Your task to perform on an android device: check battery use Image 0: 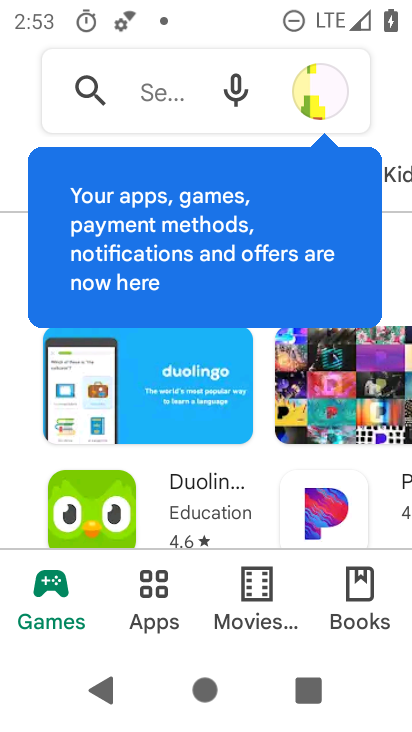
Step 0: press home button
Your task to perform on an android device: check battery use Image 1: 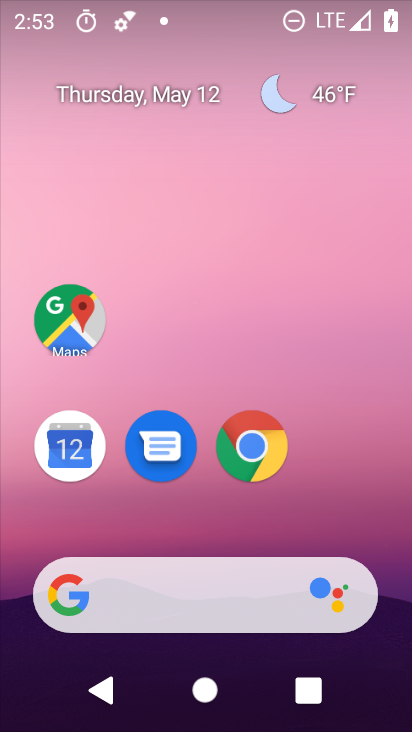
Step 1: drag from (217, 540) to (210, 119)
Your task to perform on an android device: check battery use Image 2: 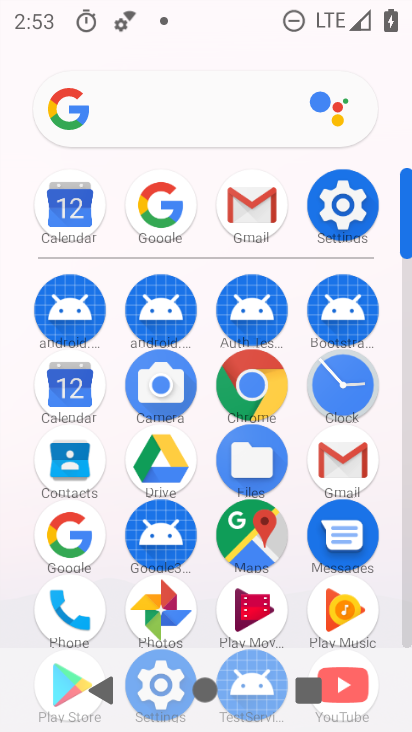
Step 2: click (323, 200)
Your task to perform on an android device: check battery use Image 3: 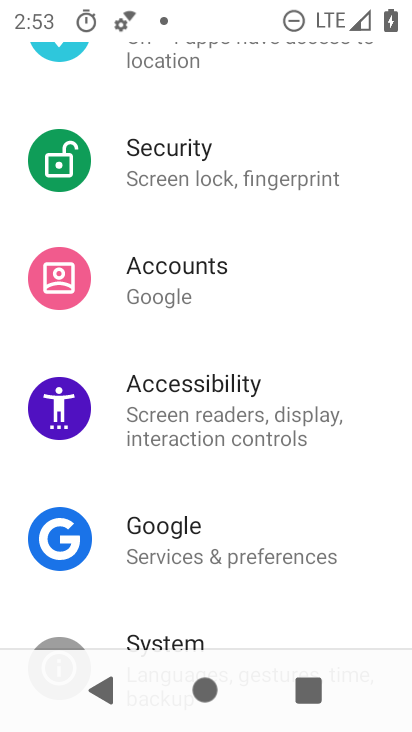
Step 3: drag from (241, 183) to (250, 468)
Your task to perform on an android device: check battery use Image 4: 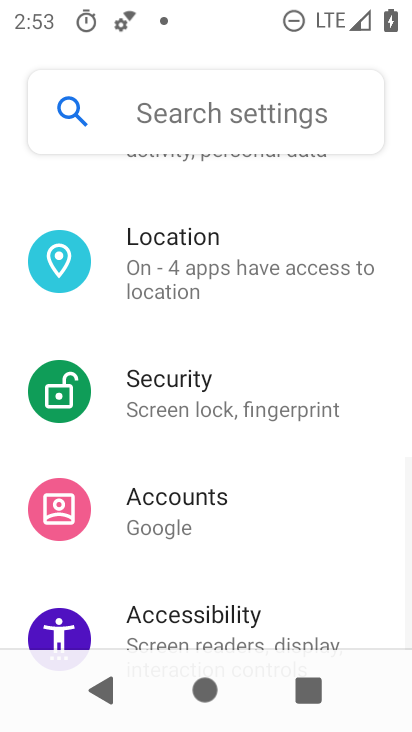
Step 4: drag from (224, 241) to (250, 467)
Your task to perform on an android device: check battery use Image 5: 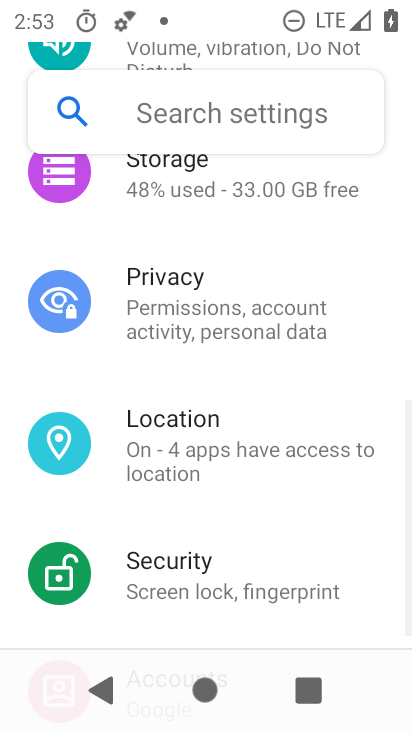
Step 5: drag from (228, 271) to (252, 464)
Your task to perform on an android device: check battery use Image 6: 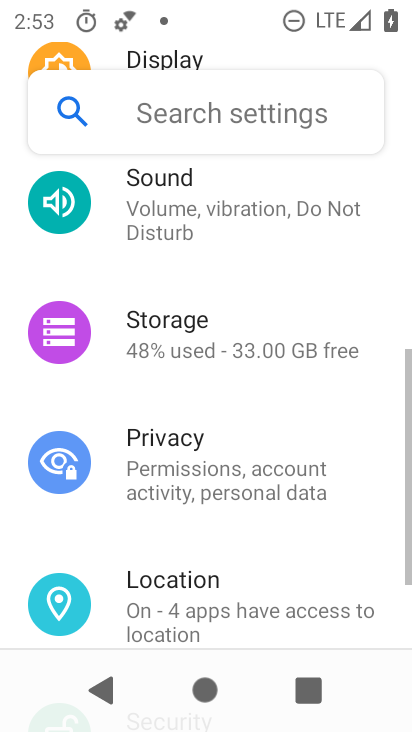
Step 6: drag from (238, 227) to (238, 509)
Your task to perform on an android device: check battery use Image 7: 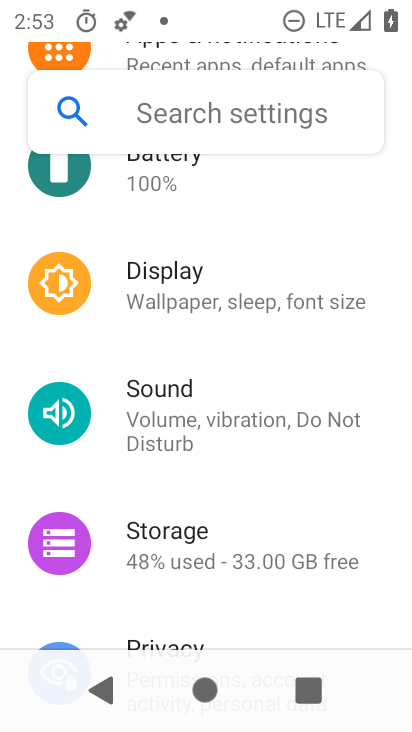
Step 7: drag from (239, 240) to (239, 505)
Your task to perform on an android device: check battery use Image 8: 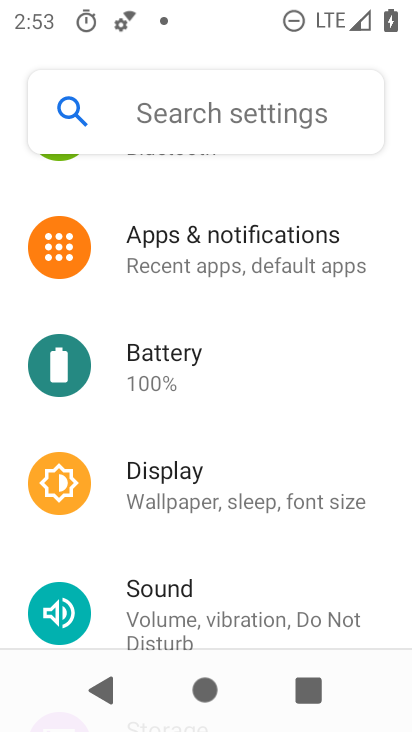
Step 8: click (205, 362)
Your task to perform on an android device: check battery use Image 9: 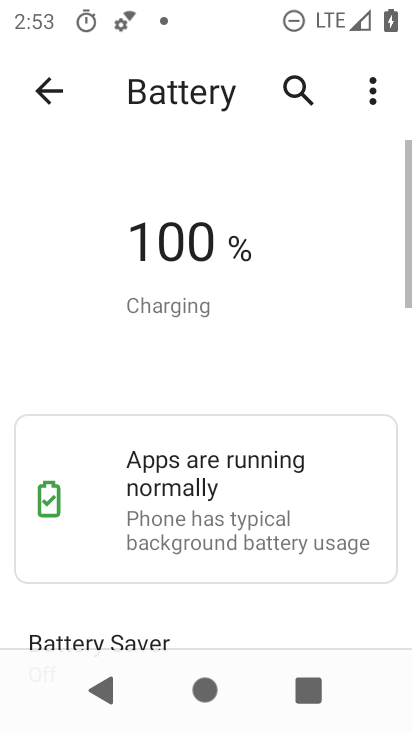
Step 9: click (366, 90)
Your task to perform on an android device: check battery use Image 10: 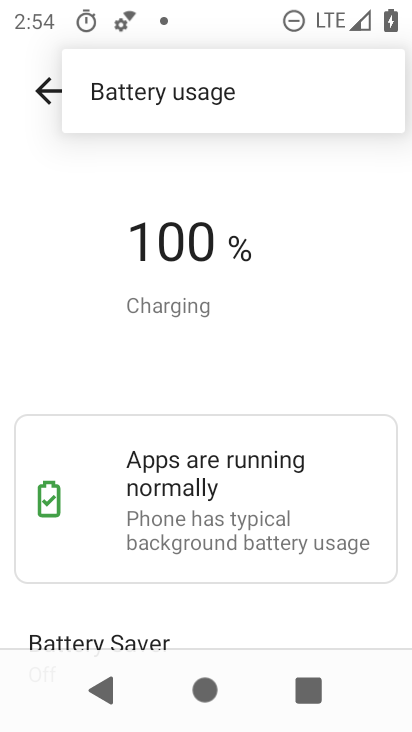
Step 10: click (229, 97)
Your task to perform on an android device: check battery use Image 11: 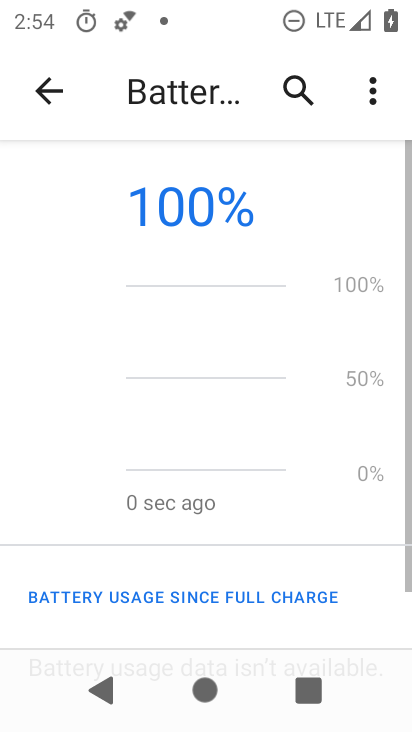
Step 11: task complete